Your task to perform on an android device: Open privacy settings Image 0: 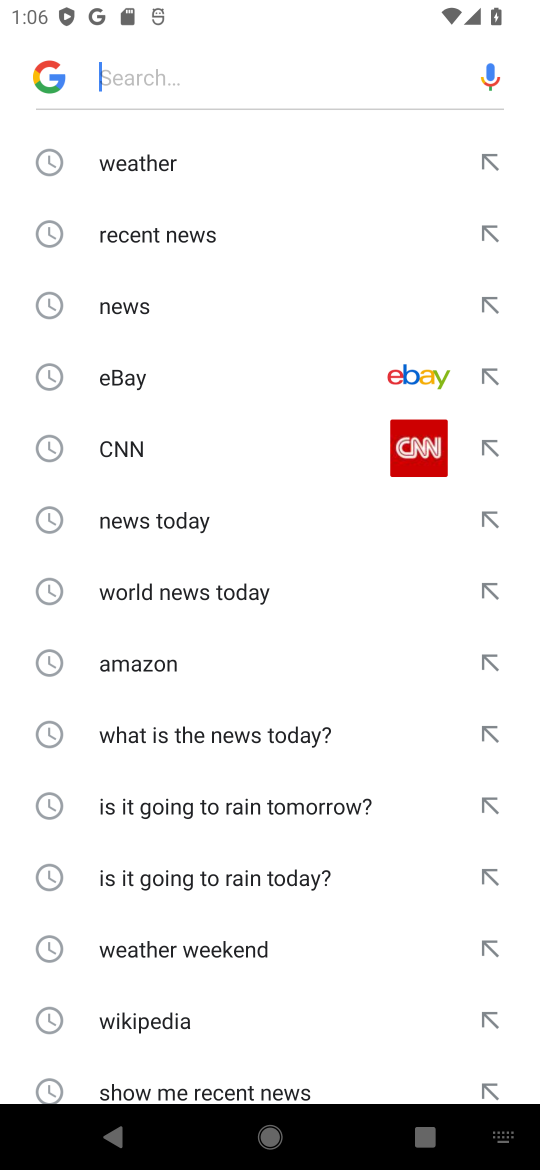
Step 0: press home button
Your task to perform on an android device: Open privacy settings Image 1: 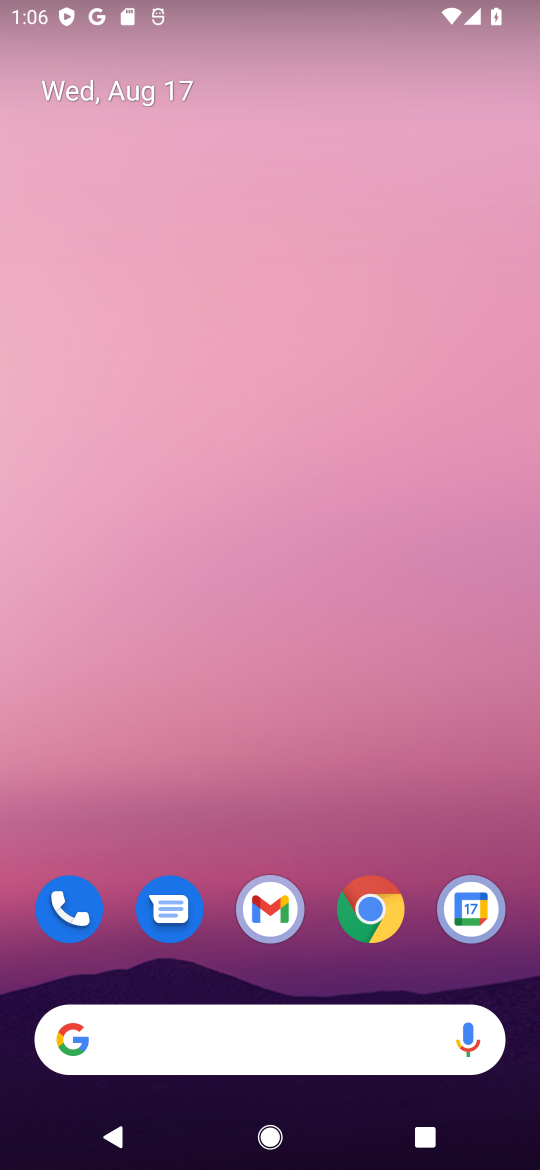
Step 1: drag from (299, 769) to (277, 159)
Your task to perform on an android device: Open privacy settings Image 2: 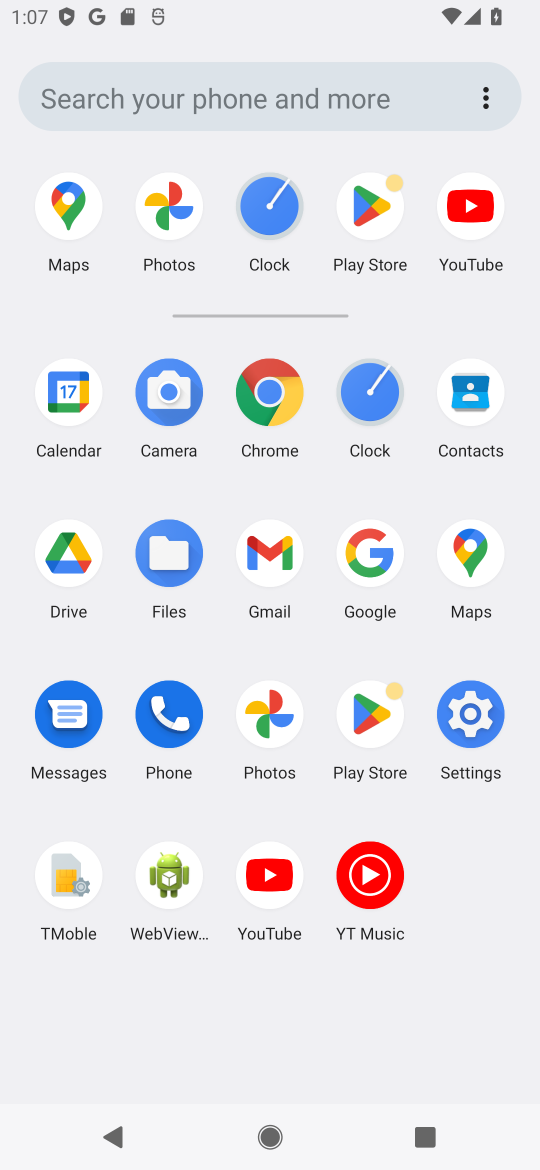
Step 2: click (474, 714)
Your task to perform on an android device: Open privacy settings Image 3: 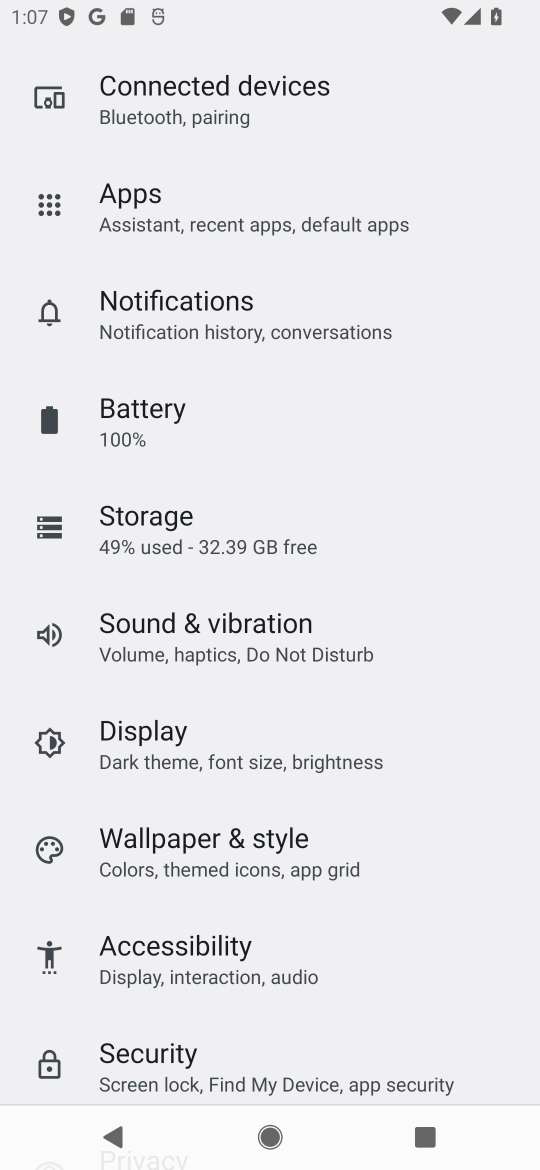
Step 3: drag from (282, 353) to (271, 785)
Your task to perform on an android device: Open privacy settings Image 4: 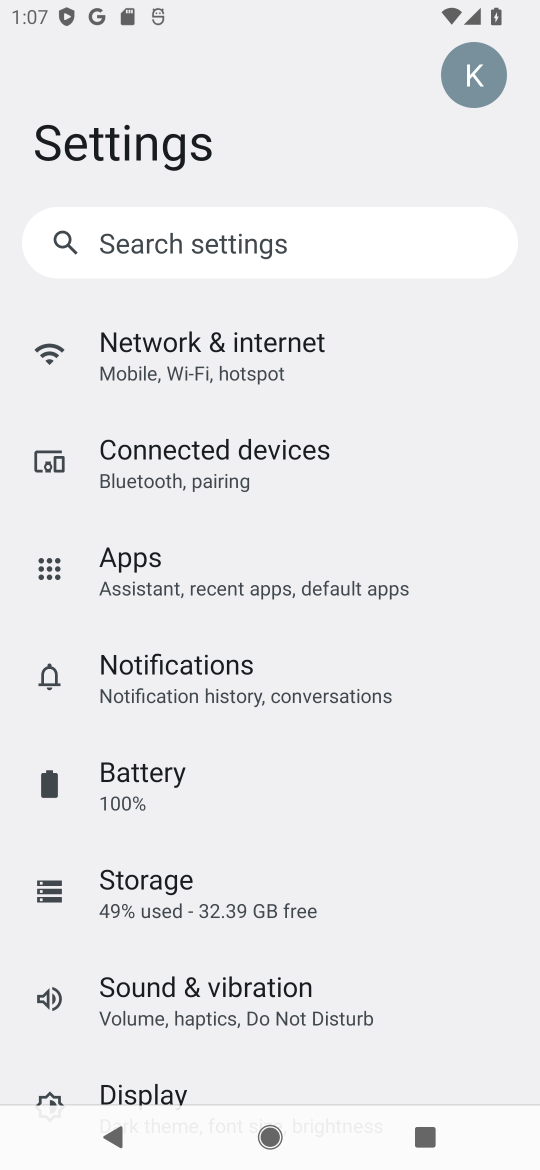
Step 4: drag from (336, 875) to (332, 352)
Your task to perform on an android device: Open privacy settings Image 5: 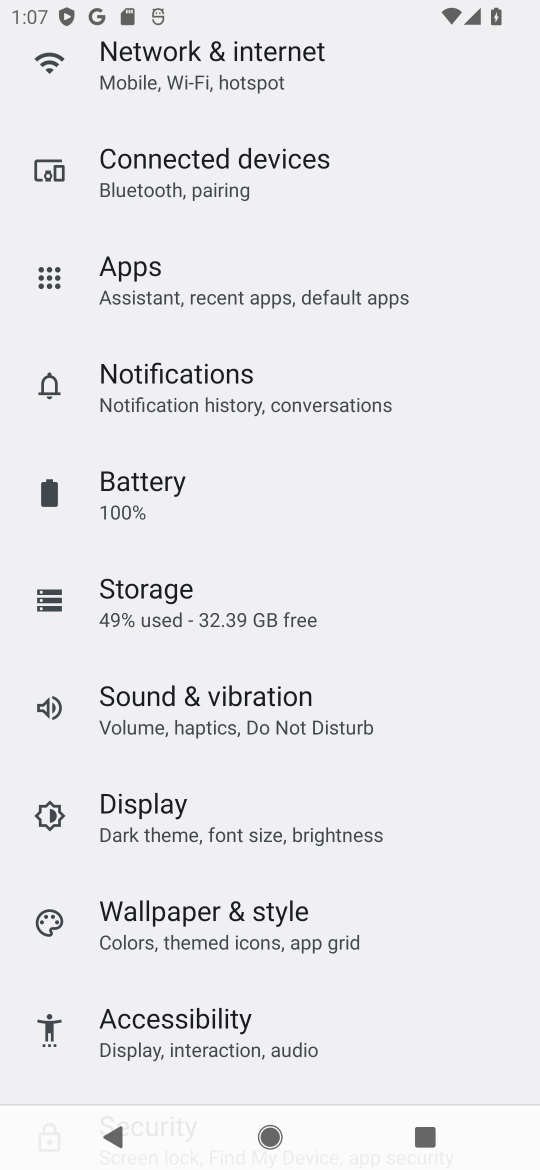
Step 5: drag from (379, 976) to (399, 599)
Your task to perform on an android device: Open privacy settings Image 6: 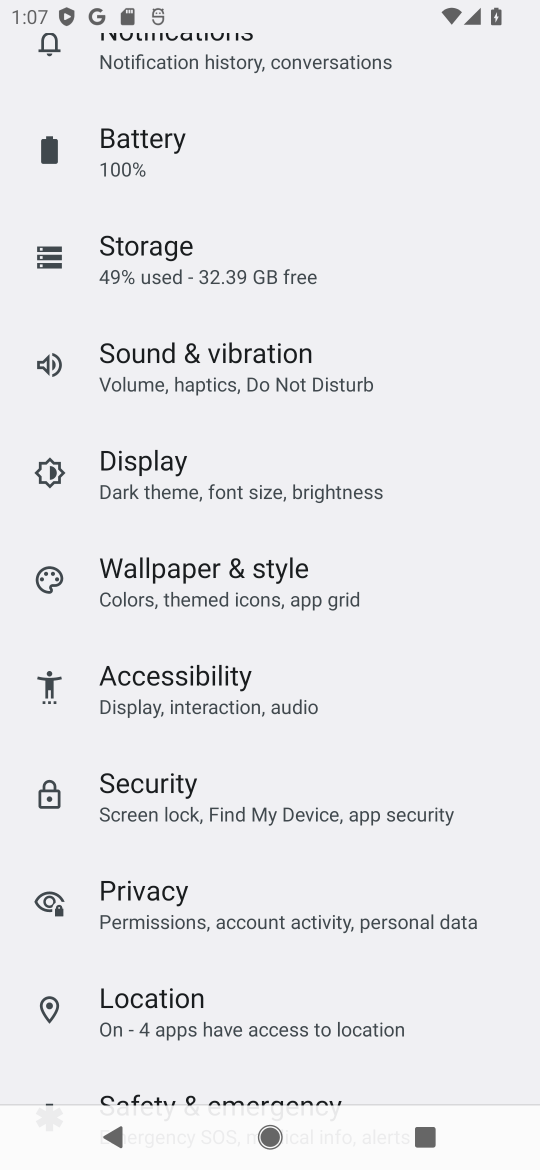
Step 6: click (150, 878)
Your task to perform on an android device: Open privacy settings Image 7: 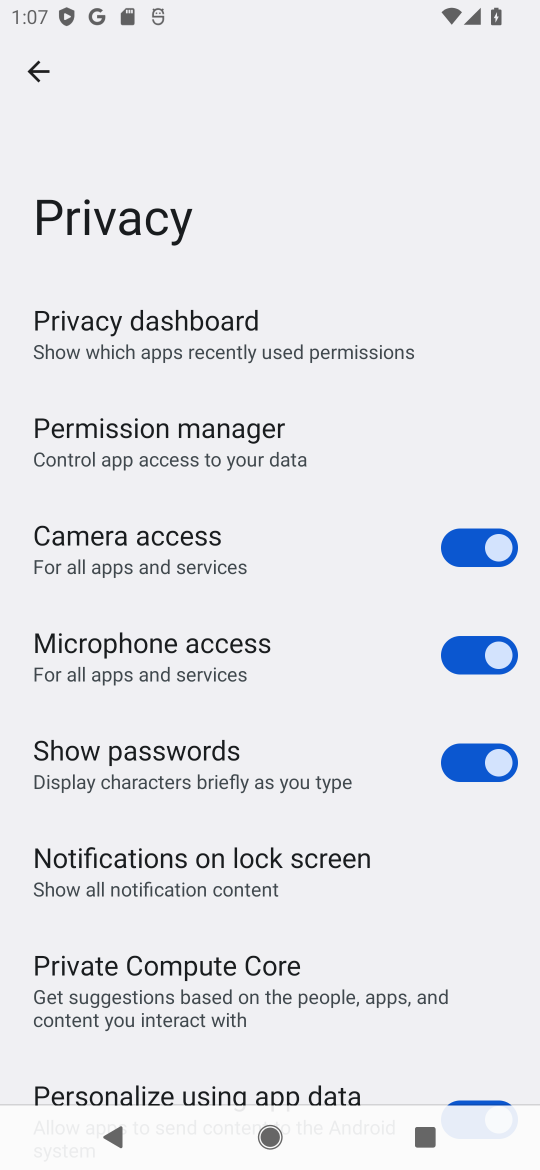
Step 7: task complete